Your task to perform on an android device: toggle notification dots Image 0: 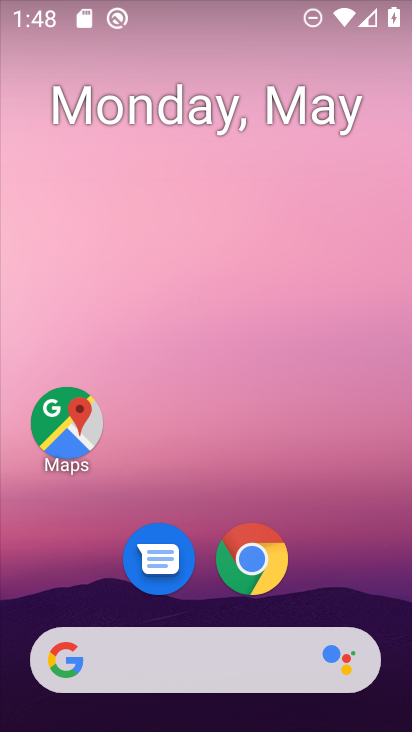
Step 0: click (75, 574)
Your task to perform on an android device: toggle notification dots Image 1: 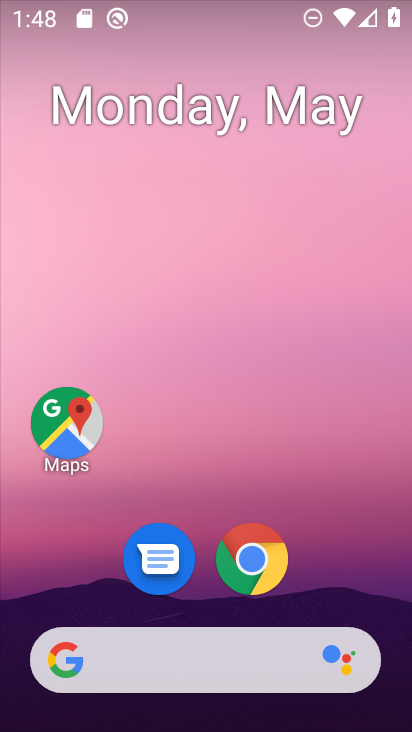
Step 1: drag from (54, 593) to (32, 36)
Your task to perform on an android device: toggle notification dots Image 2: 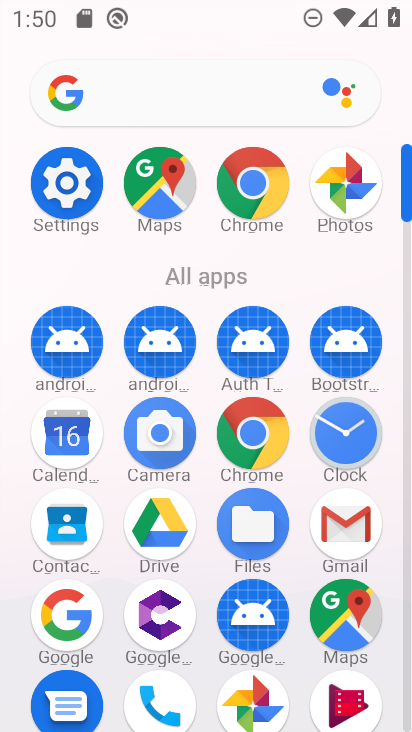
Step 2: click (75, 192)
Your task to perform on an android device: toggle notification dots Image 3: 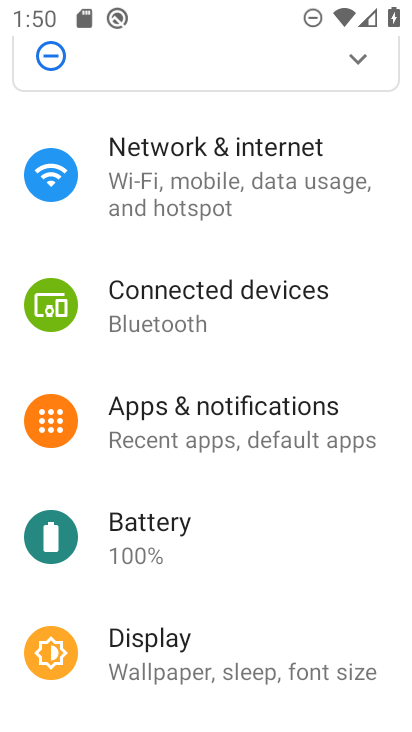
Step 3: click (214, 406)
Your task to perform on an android device: toggle notification dots Image 4: 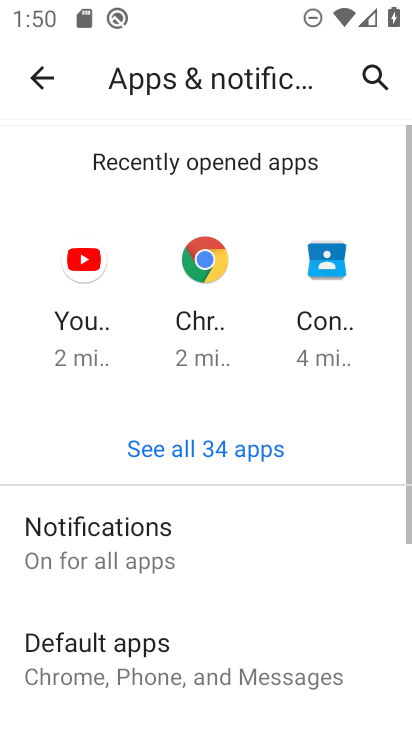
Step 4: drag from (231, 355) to (233, 44)
Your task to perform on an android device: toggle notification dots Image 5: 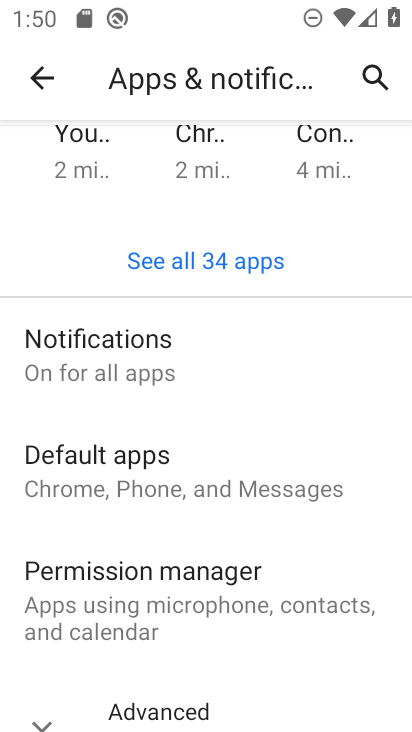
Step 5: click (167, 363)
Your task to perform on an android device: toggle notification dots Image 6: 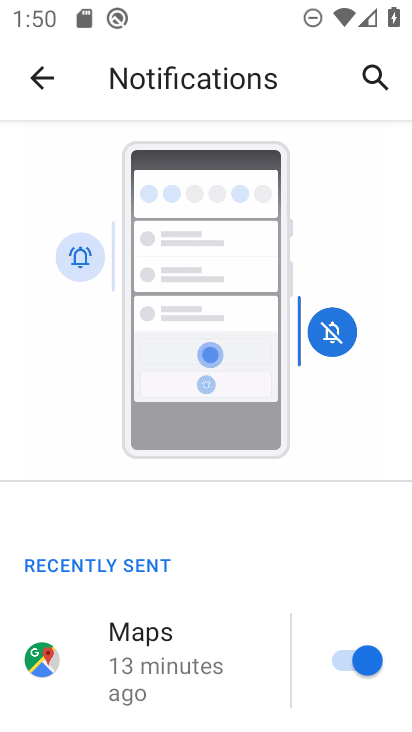
Step 6: drag from (252, 599) to (249, 235)
Your task to perform on an android device: toggle notification dots Image 7: 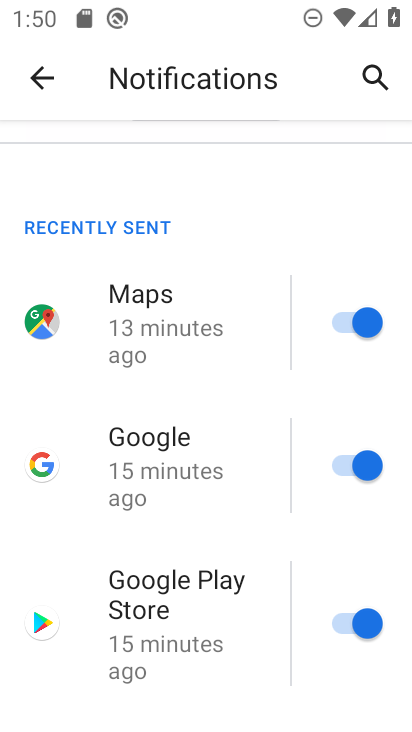
Step 7: drag from (258, 660) to (337, 168)
Your task to perform on an android device: toggle notification dots Image 8: 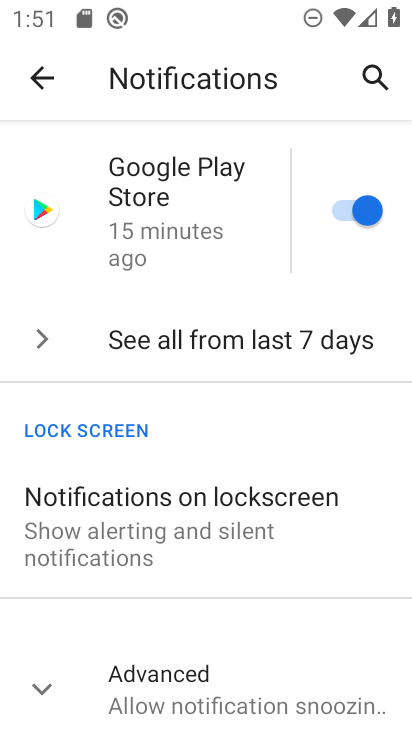
Step 8: drag from (302, 624) to (245, 432)
Your task to perform on an android device: toggle notification dots Image 9: 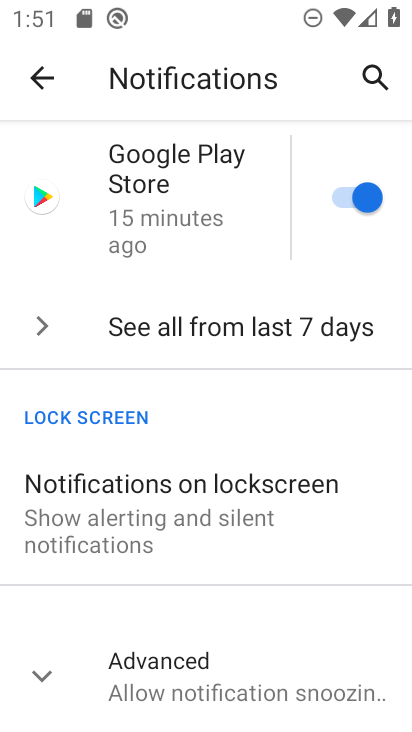
Step 9: click (234, 677)
Your task to perform on an android device: toggle notification dots Image 10: 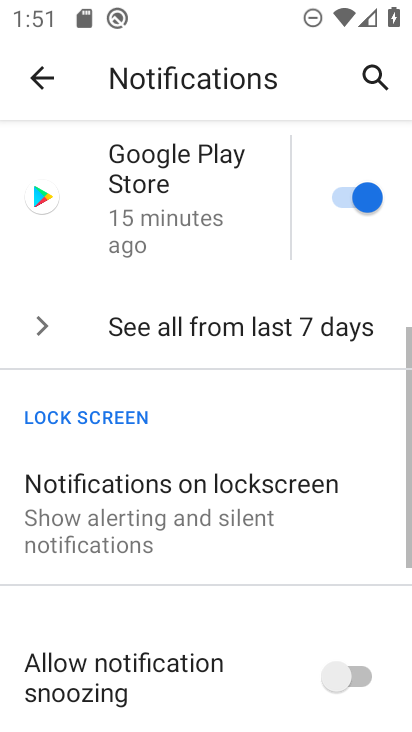
Step 10: drag from (236, 672) to (170, 278)
Your task to perform on an android device: toggle notification dots Image 11: 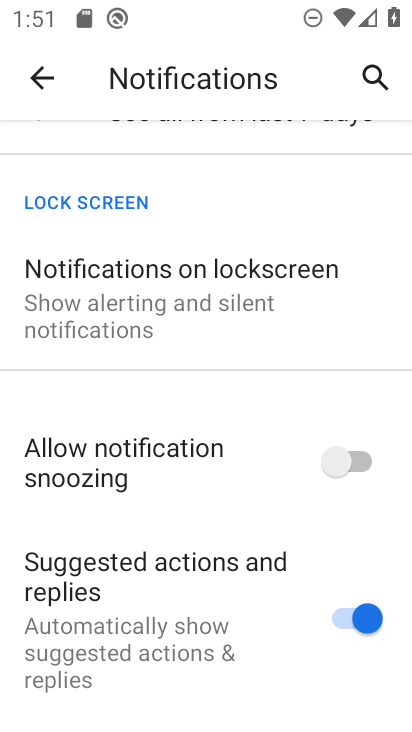
Step 11: drag from (318, 644) to (203, 264)
Your task to perform on an android device: toggle notification dots Image 12: 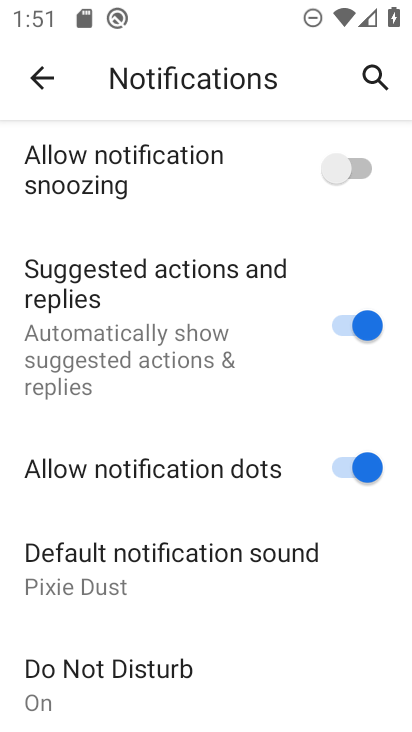
Step 12: click (312, 484)
Your task to perform on an android device: toggle notification dots Image 13: 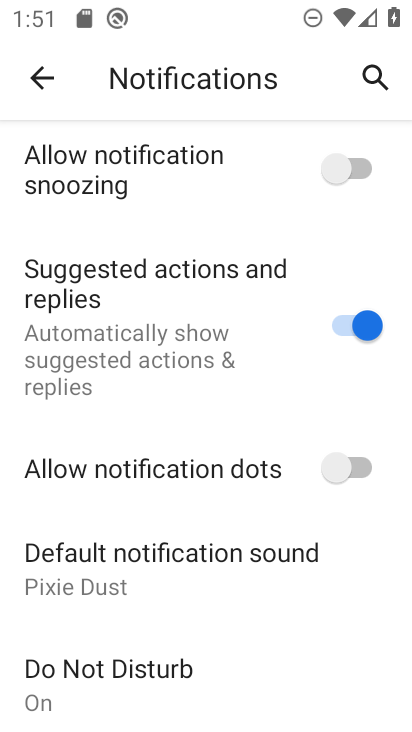
Step 13: task complete